Your task to perform on an android device: Open the calendar app, open the side menu, and click the "Day" option Image 0: 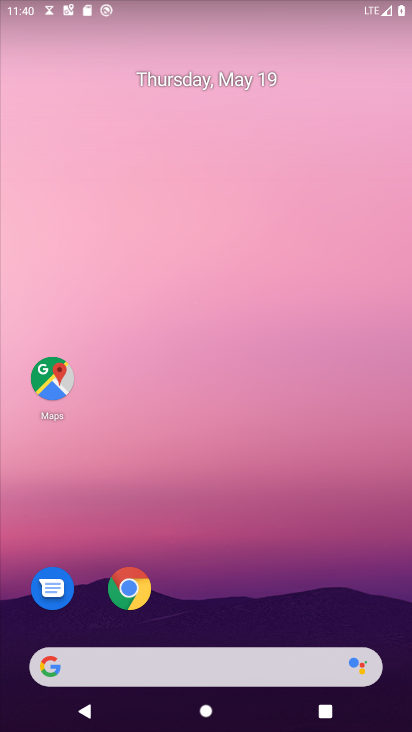
Step 0: drag from (244, 449) to (166, 67)
Your task to perform on an android device: Open the calendar app, open the side menu, and click the "Day" option Image 1: 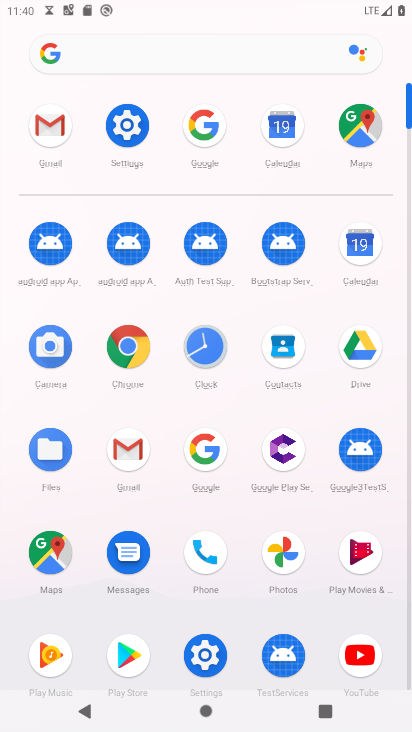
Step 1: click (369, 249)
Your task to perform on an android device: Open the calendar app, open the side menu, and click the "Day" option Image 2: 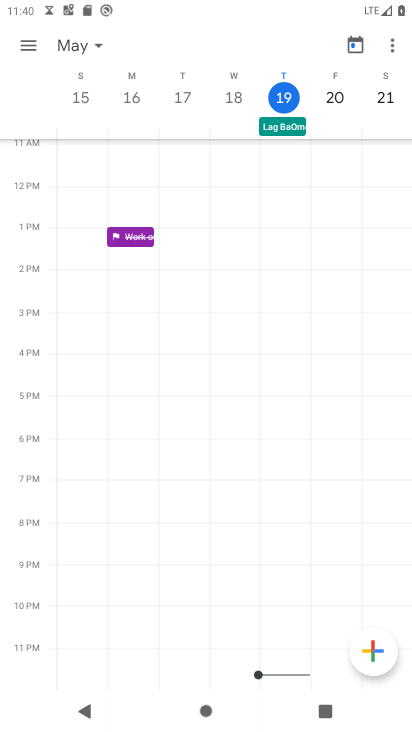
Step 2: click (25, 47)
Your task to perform on an android device: Open the calendar app, open the side menu, and click the "Day" option Image 3: 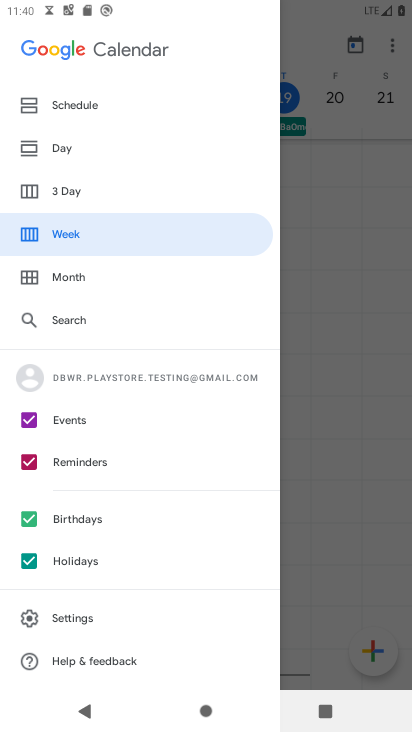
Step 3: click (73, 143)
Your task to perform on an android device: Open the calendar app, open the side menu, and click the "Day" option Image 4: 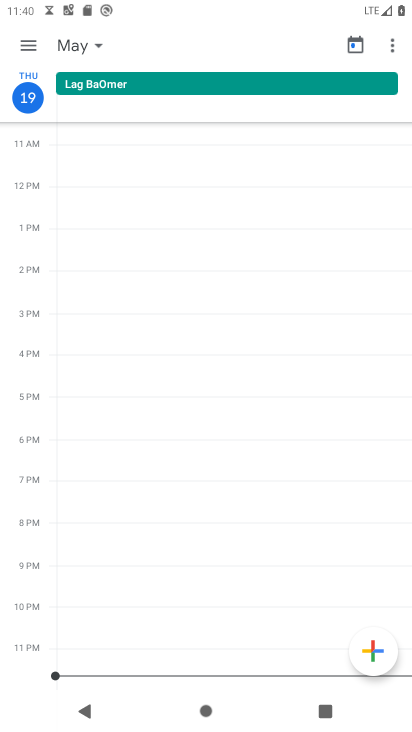
Step 4: task complete